Your task to perform on an android device: toggle javascript in the chrome app Image 0: 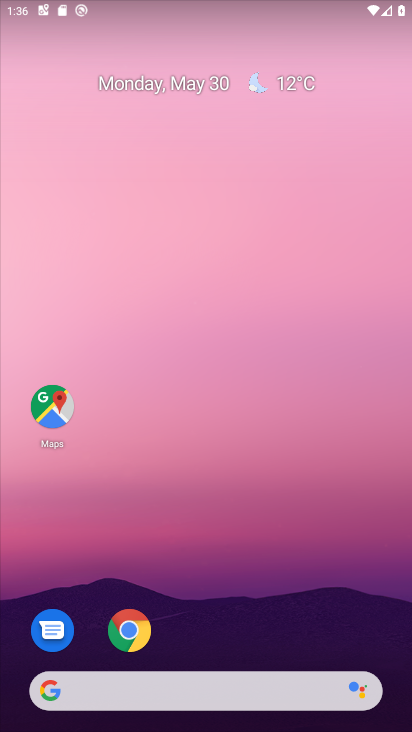
Step 0: drag from (199, 17) to (226, 372)
Your task to perform on an android device: toggle javascript in the chrome app Image 1: 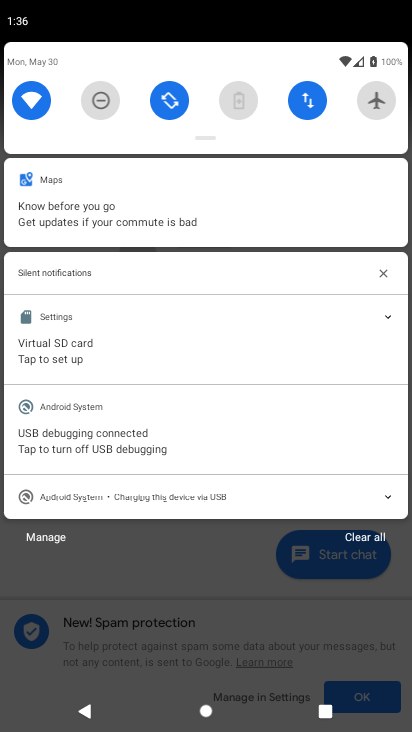
Step 1: task complete